Your task to perform on an android device: snooze an email in the gmail app Image 0: 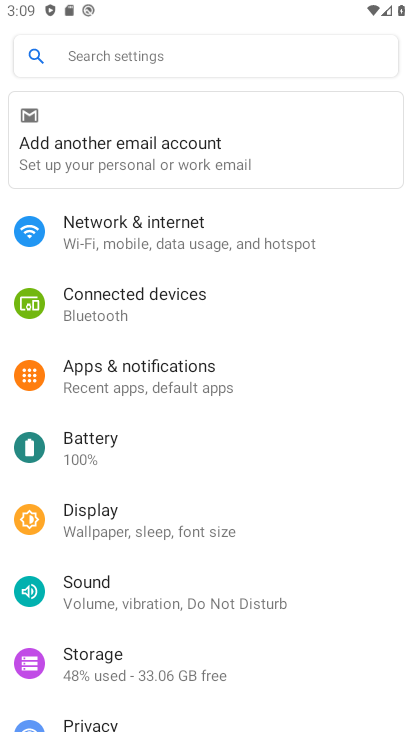
Step 0: press home button
Your task to perform on an android device: snooze an email in the gmail app Image 1: 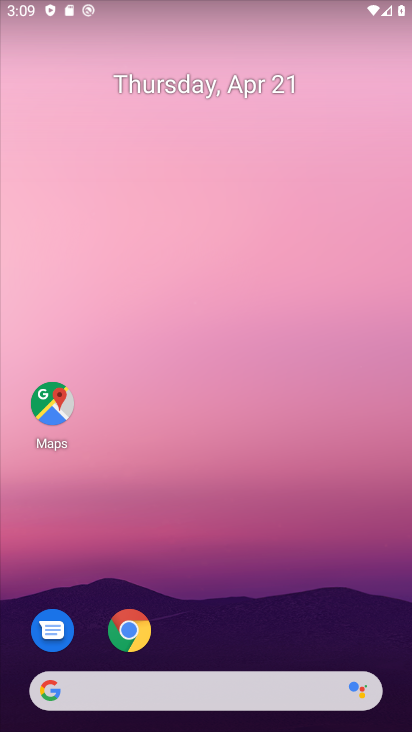
Step 1: drag from (263, 603) to (280, 305)
Your task to perform on an android device: snooze an email in the gmail app Image 2: 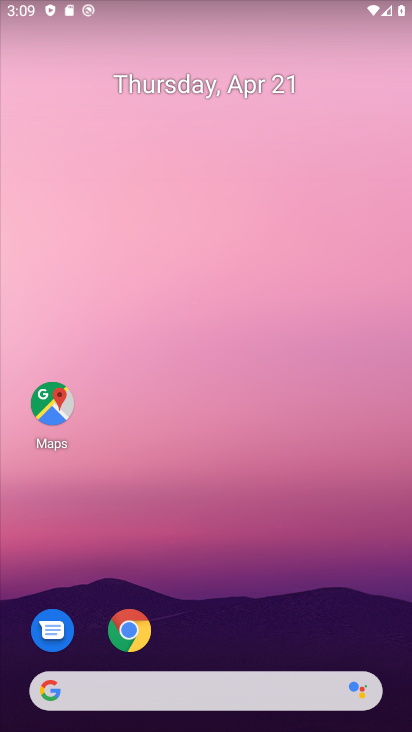
Step 2: drag from (159, 635) to (219, 356)
Your task to perform on an android device: snooze an email in the gmail app Image 3: 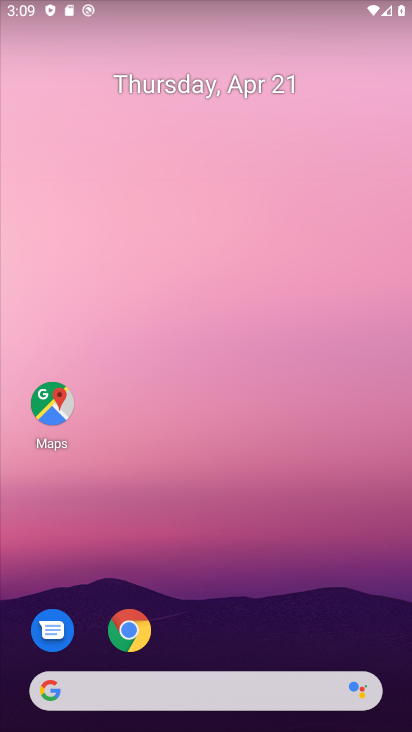
Step 3: drag from (202, 617) to (318, 103)
Your task to perform on an android device: snooze an email in the gmail app Image 4: 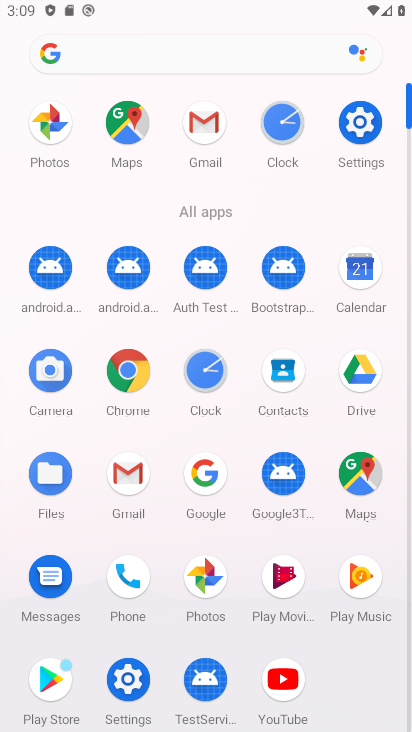
Step 4: click (122, 477)
Your task to perform on an android device: snooze an email in the gmail app Image 5: 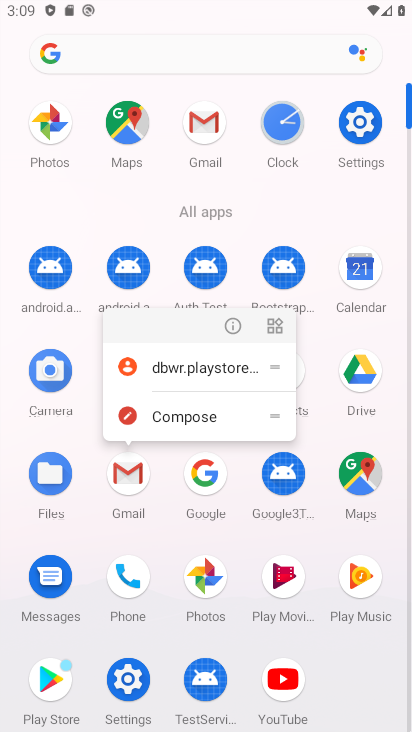
Step 5: click (128, 500)
Your task to perform on an android device: snooze an email in the gmail app Image 6: 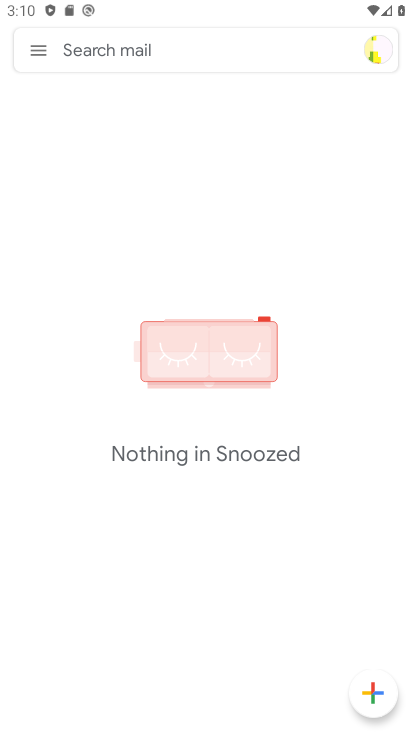
Step 6: task complete